Your task to perform on an android device: Open Google Maps Image 0: 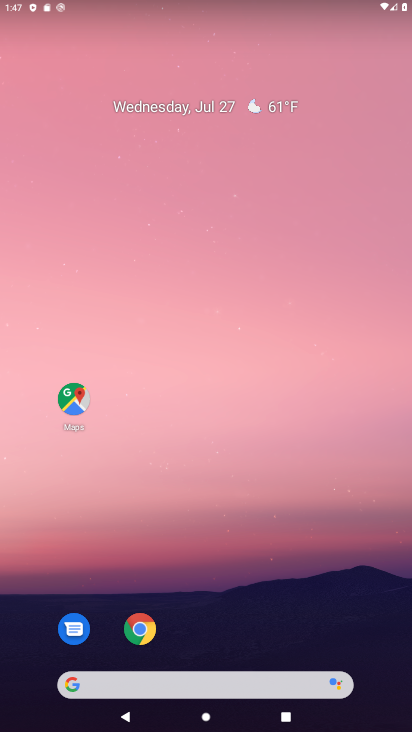
Step 0: click (73, 398)
Your task to perform on an android device: Open Google Maps Image 1: 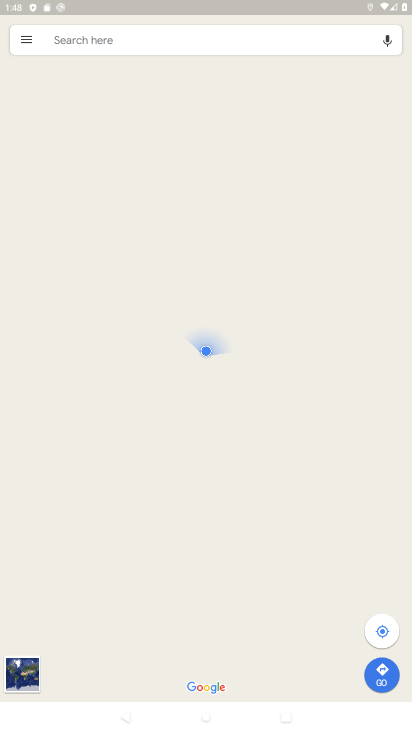
Step 1: task complete